Your task to perform on an android device: Open Yahoo.com Image 0: 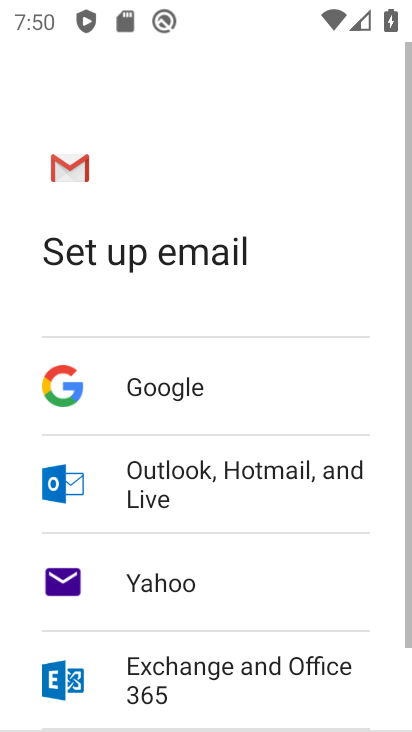
Step 0: press home button
Your task to perform on an android device: Open Yahoo.com Image 1: 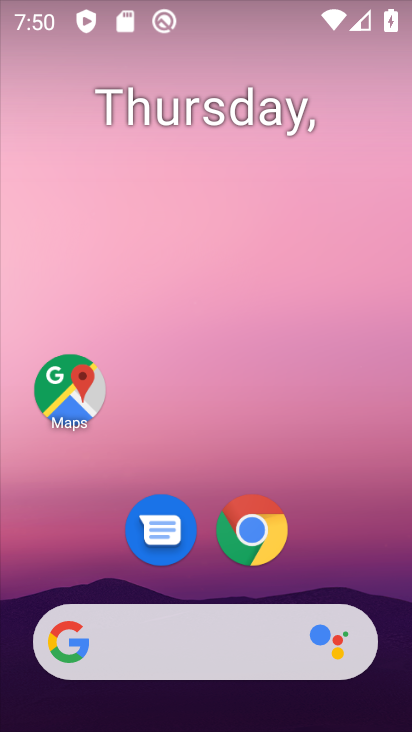
Step 1: click (263, 541)
Your task to perform on an android device: Open Yahoo.com Image 2: 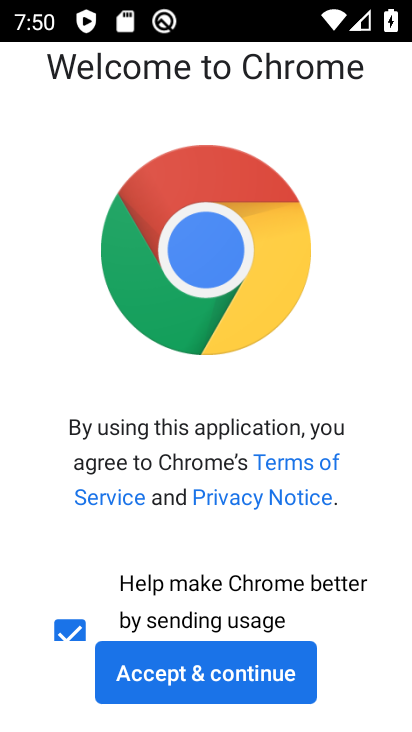
Step 2: click (186, 679)
Your task to perform on an android device: Open Yahoo.com Image 3: 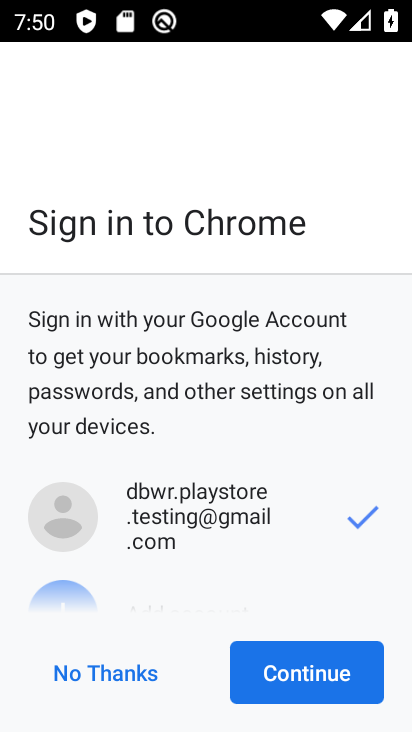
Step 3: click (281, 670)
Your task to perform on an android device: Open Yahoo.com Image 4: 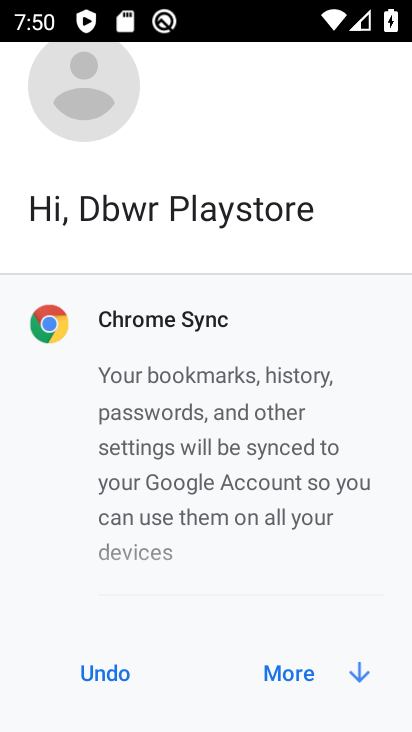
Step 4: click (281, 670)
Your task to perform on an android device: Open Yahoo.com Image 5: 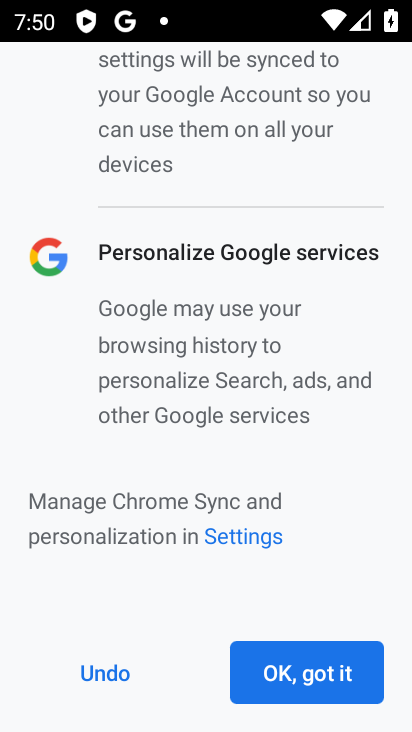
Step 5: click (281, 670)
Your task to perform on an android device: Open Yahoo.com Image 6: 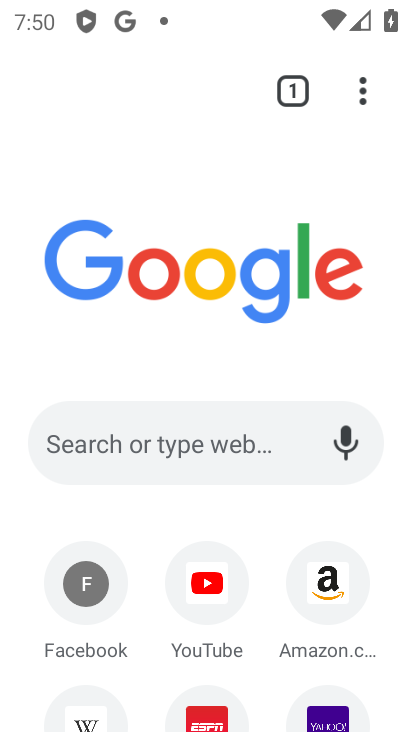
Step 6: drag from (212, 525) to (360, 116)
Your task to perform on an android device: Open Yahoo.com Image 7: 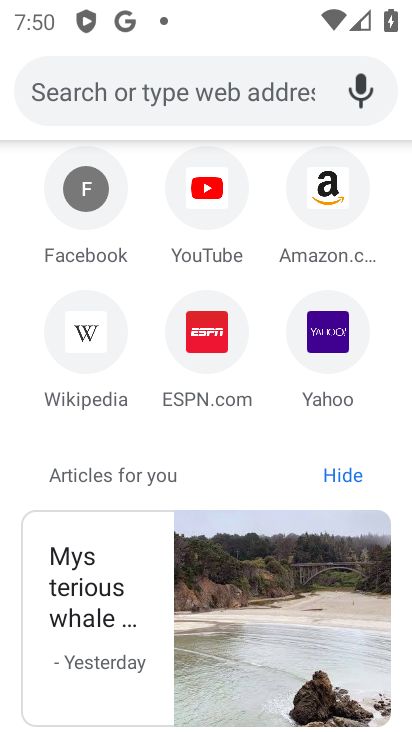
Step 7: click (335, 341)
Your task to perform on an android device: Open Yahoo.com Image 8: 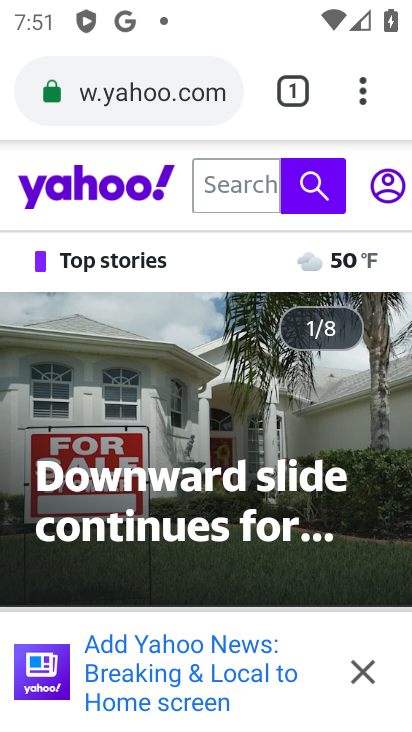
Step 8: task complete